Your task to perform on an android device: Check out the new ikea catalog. Image 0: 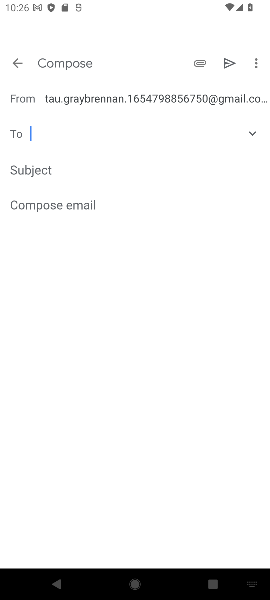
Step 0: press home button
Your task to perform on an android device: Check out the new ikea catalog. Image 1: 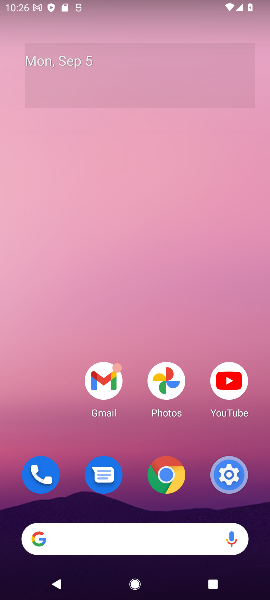
Step 1: click (95, 541)
Your task to perform on an android device: Check out the new ikea catalog. Image 2: 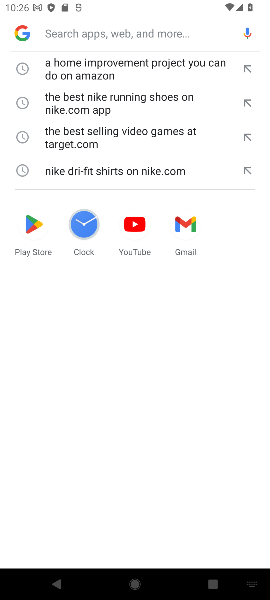
Step 2: type "the new ikea catalog."
Your task to perform on an android device: Check out the new ikea catalog. Image 3: 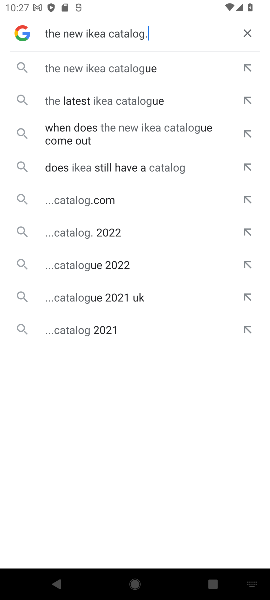
Step 3: click (116, 63)
Your task to perform on an android device: Check out the new ikea catalog. Image 4: 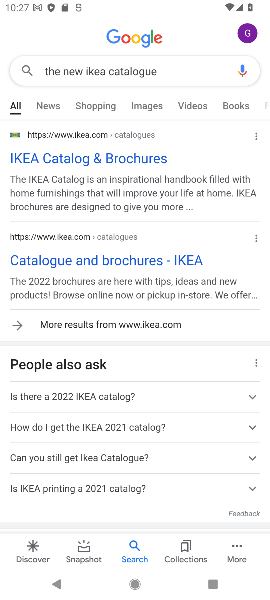
Step 4: click (196, 141)
Your task to perform on an android device: Check out the new ikea catalog. Image 5: 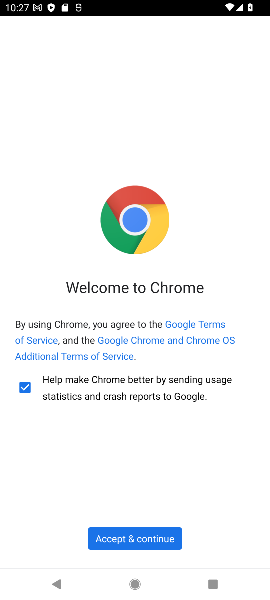
Step 5: task complete